Your task to perform on an android device: create a new album in the google photos Image 0: 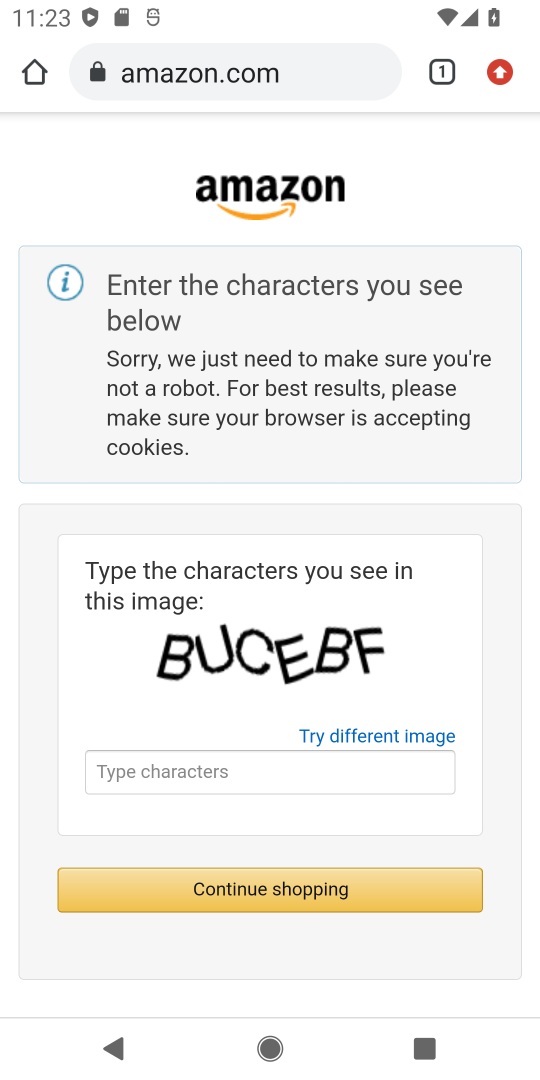
Step 0: press home button
Your task to perform on an android device: create a new album in the google photos Image 1: 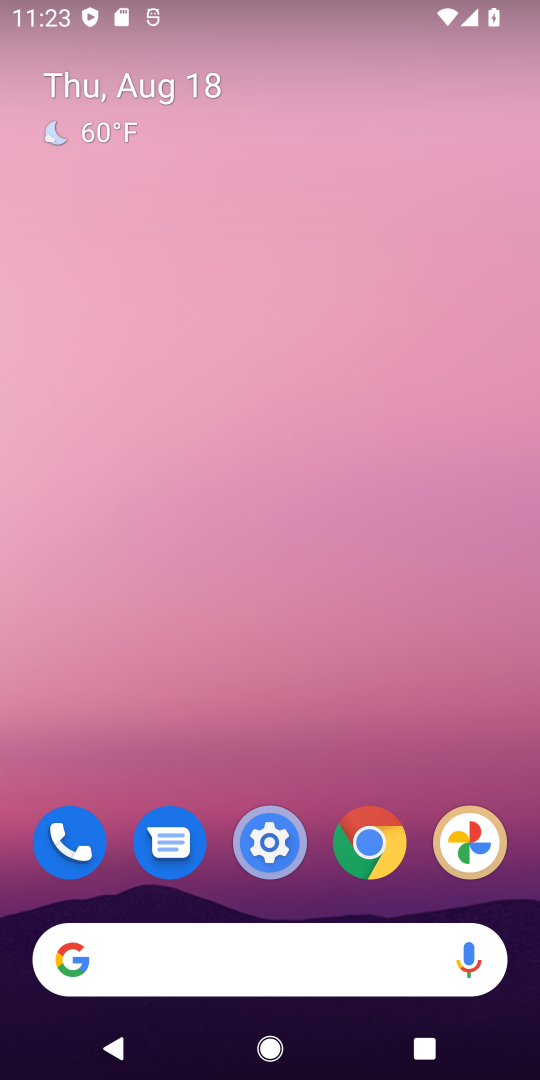
Step 1: drag from (264, 894) to (231, 163)
Your task to perform on an android device: create a new album in the google photos Image 2: 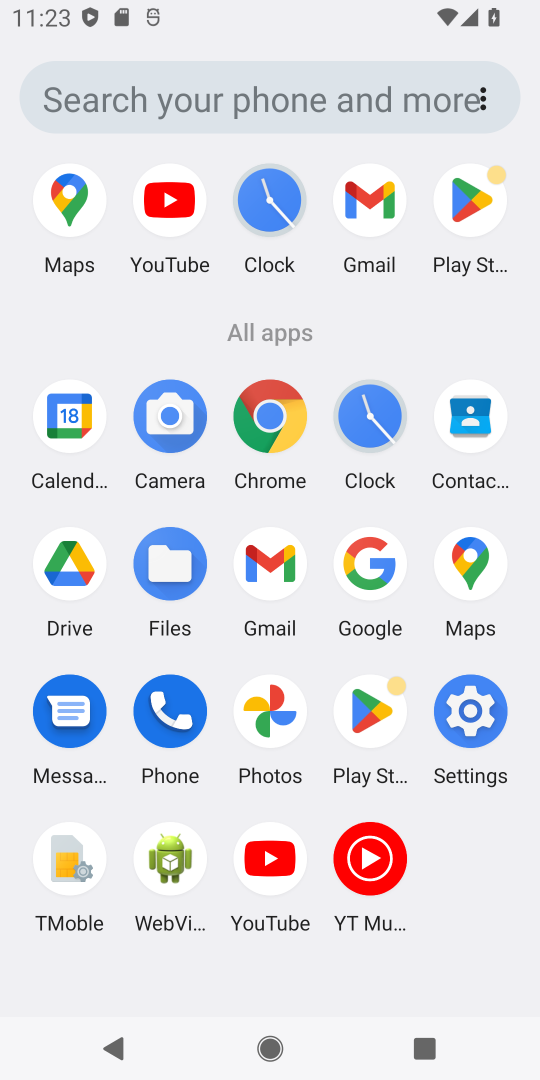
Step 2: click (270, 749)
Your task to perform on an android device: create a new album in the google photos Image 3: 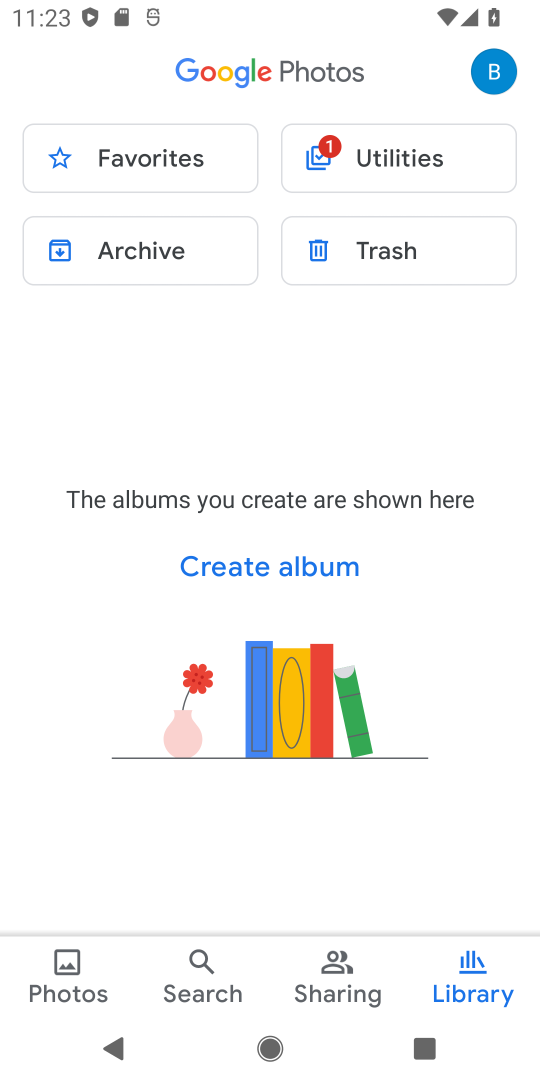
Step 3: click (335, 556)
Your task to perform on an android device: create a new album in the google photos Image 4: 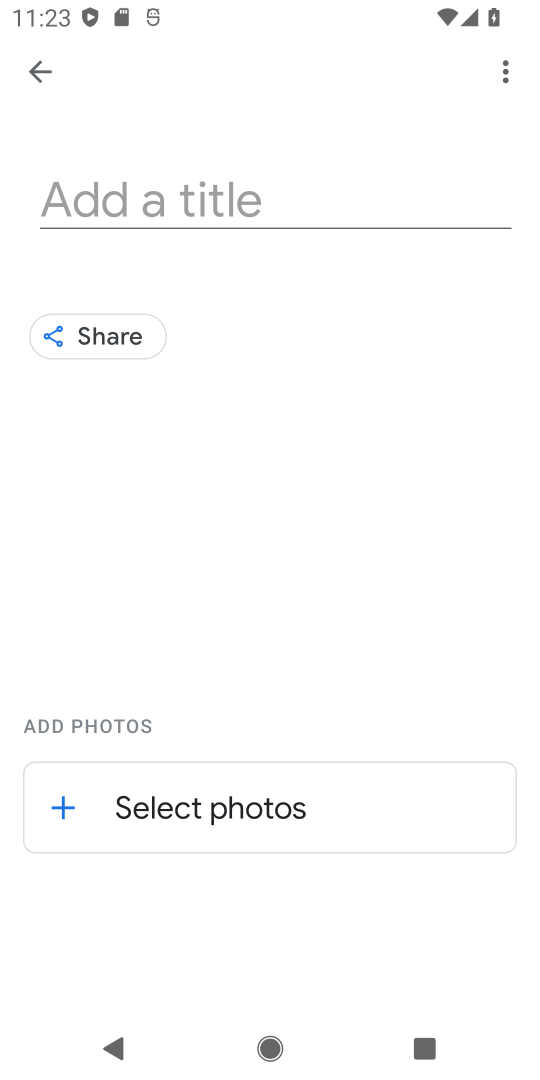
Step 4: click (258, 203)
Your task to perform on an android device: create a new album in the google photos Image 5: 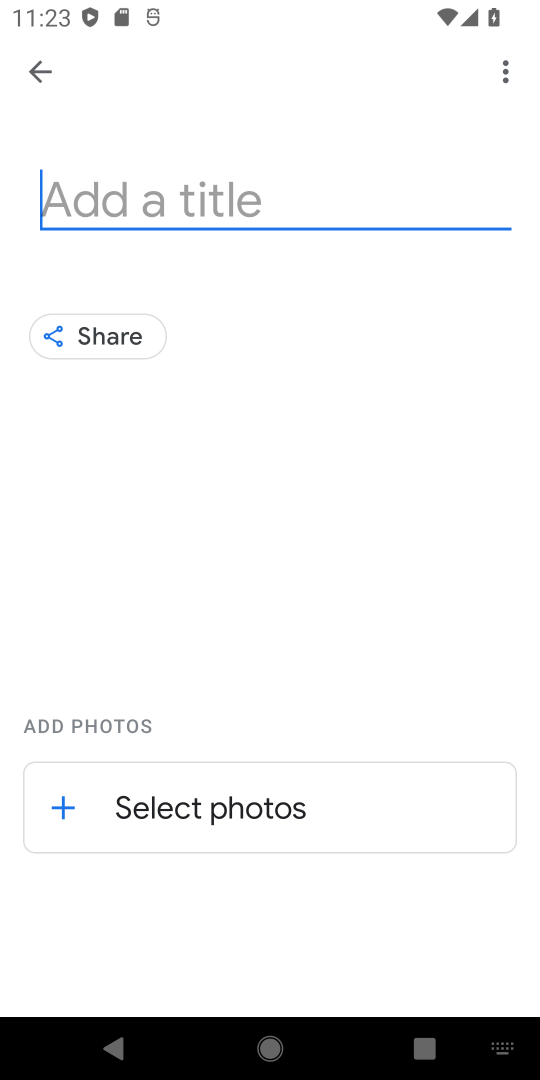
Step 5: task complete